Your task to perform on an android device: turn off javascript in the chrome app Image 0: 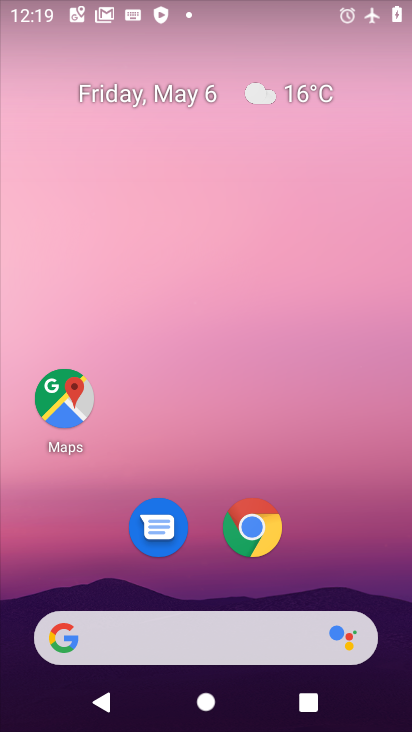
Step 0: click (266, 537)
Your task to perform on an android device: turn off javascript in the chrome app Image 1: 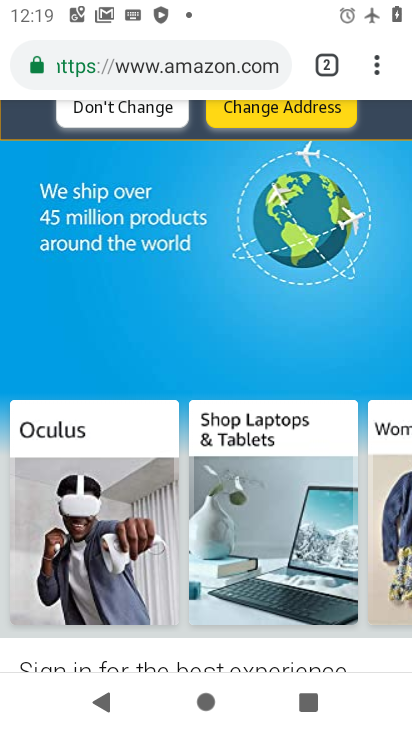
Step 1: drag from (376, 67) to (179, 578)
Your task to perform on an android device: turn off javascript in the chrome app Image 2: 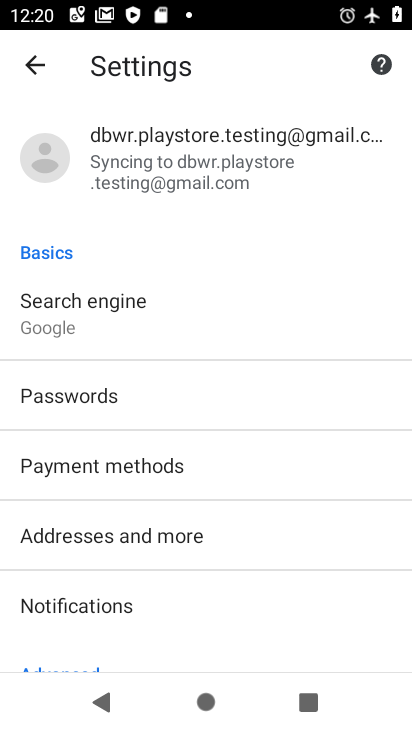
Step 2: drag from (188, 624) to (190, 213)
Your task to perform on an android device: turn off javascript in the chrome app Image 3: 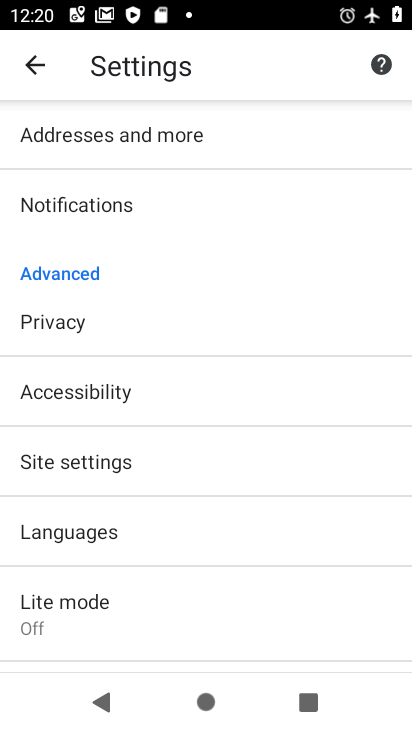
Step 3: click (56, 457)
Your task to perform on an android device: turn off javascript in the chrome app Image 4: 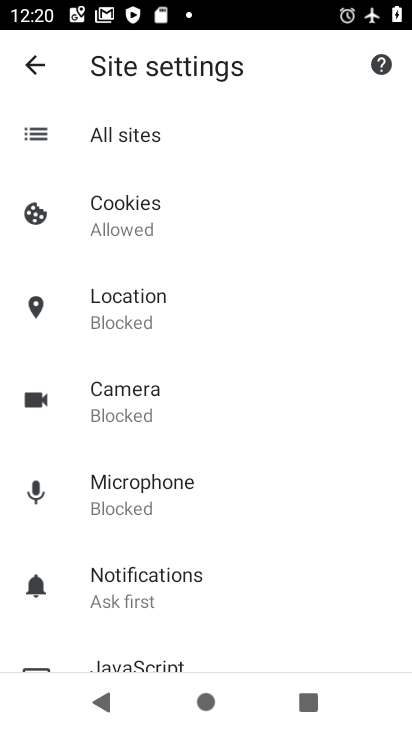
Step 4: click (145, 657)
Your task to perform on an android device: turn off javascript in the chrome app Image 5: 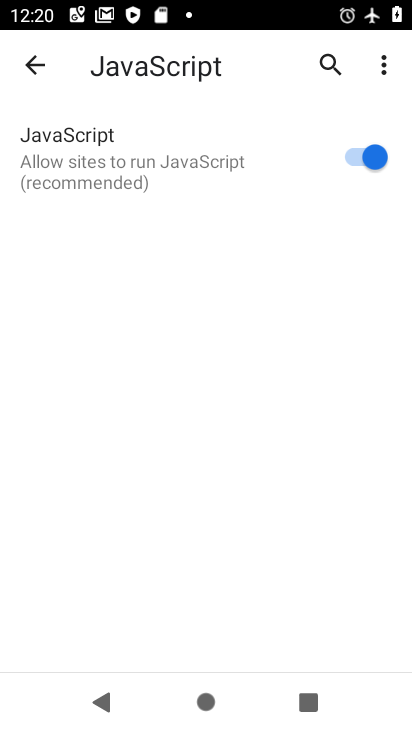
Step 5: click (348, 158)
Your task to perform on an android device: turn off javascript in the chrome app Image 6: 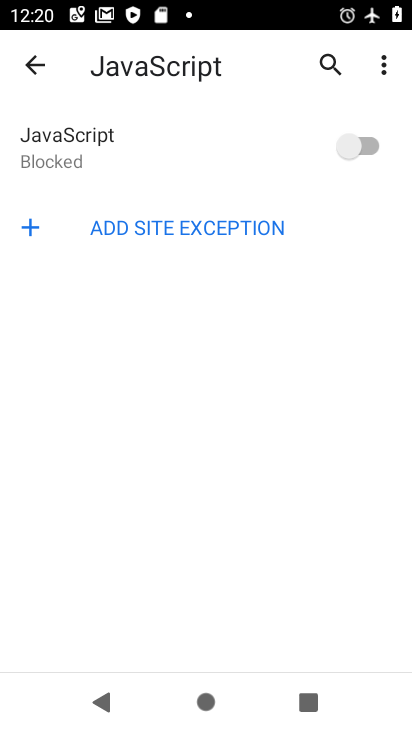
Step 6: task complete